Your task to perform on an android device: Go to Reddit.com Image 0: 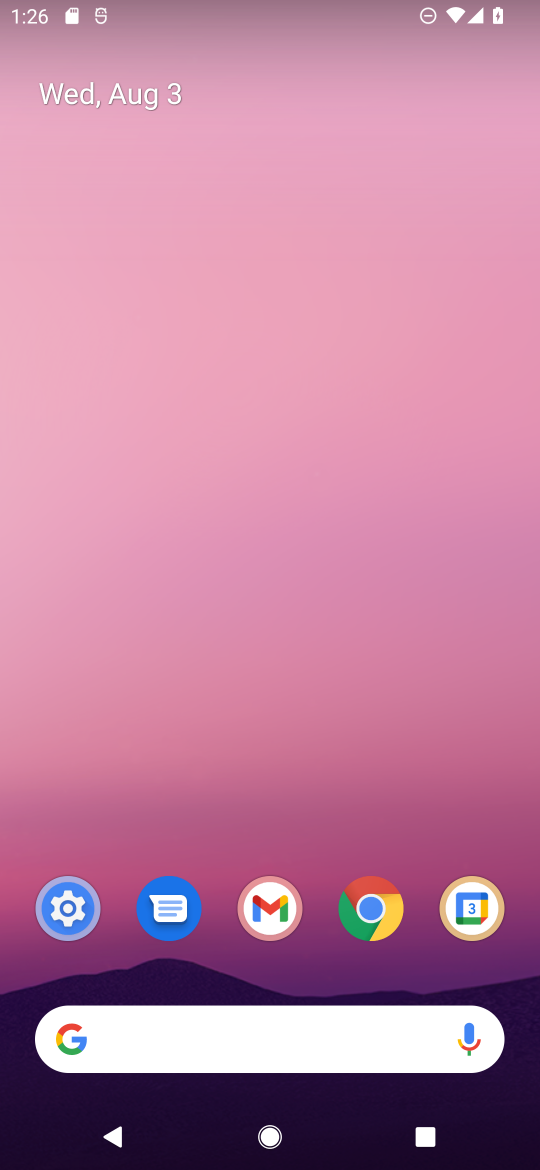
Step 0: click (380, 930)
Your task to perform on an android device: Go to Reddit.com Image 1: 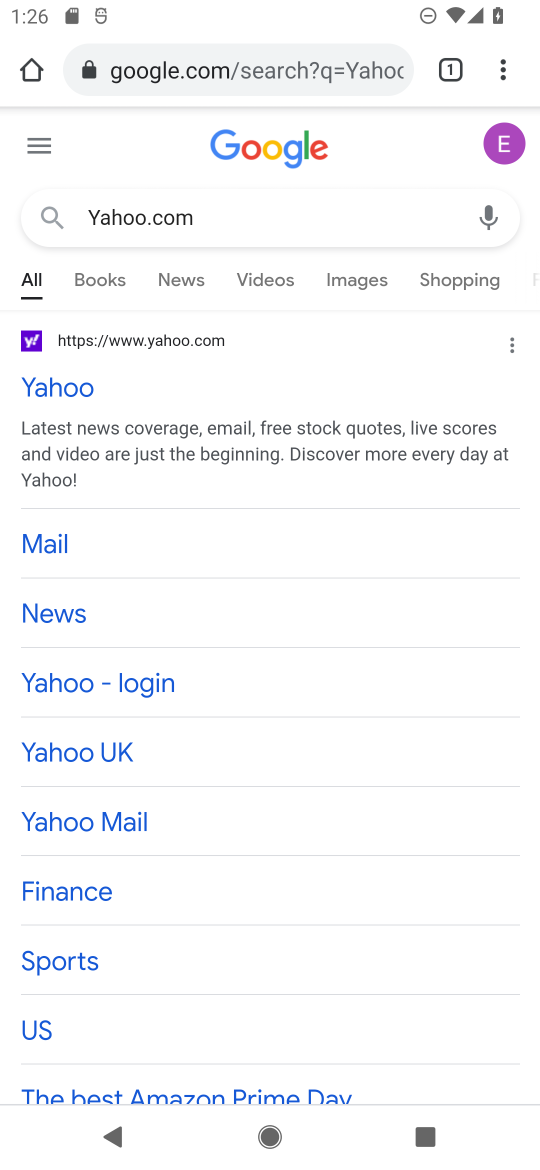
Step 1: click (241, 76)
Your task to perform on an android device: Go to Reddit.com Image 2: 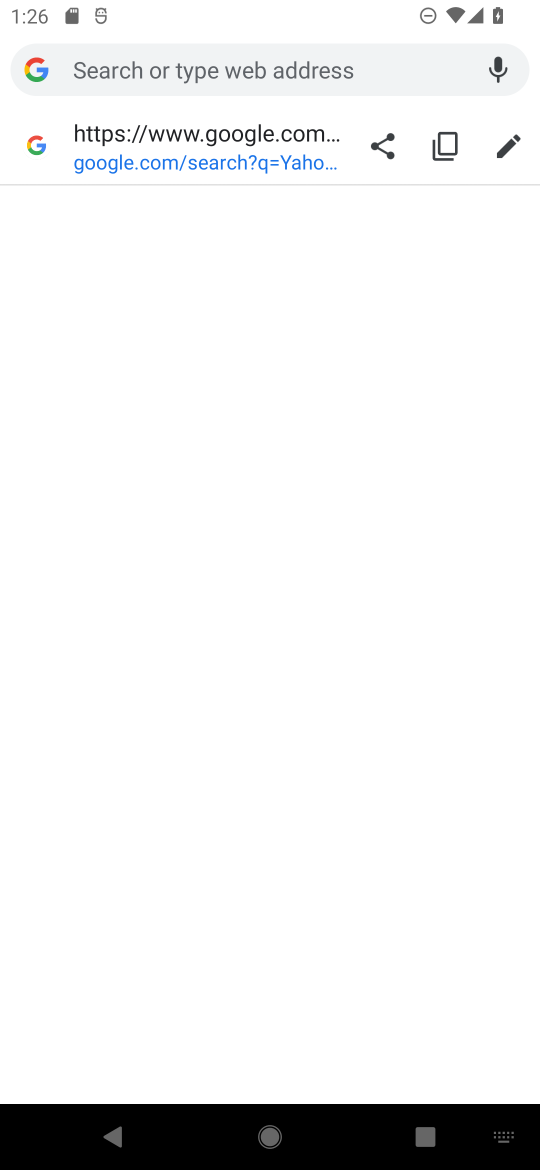
Step 2: type "www.reddit.com"
Your task to perform on an android device: Go to Reddit.com Image 3: 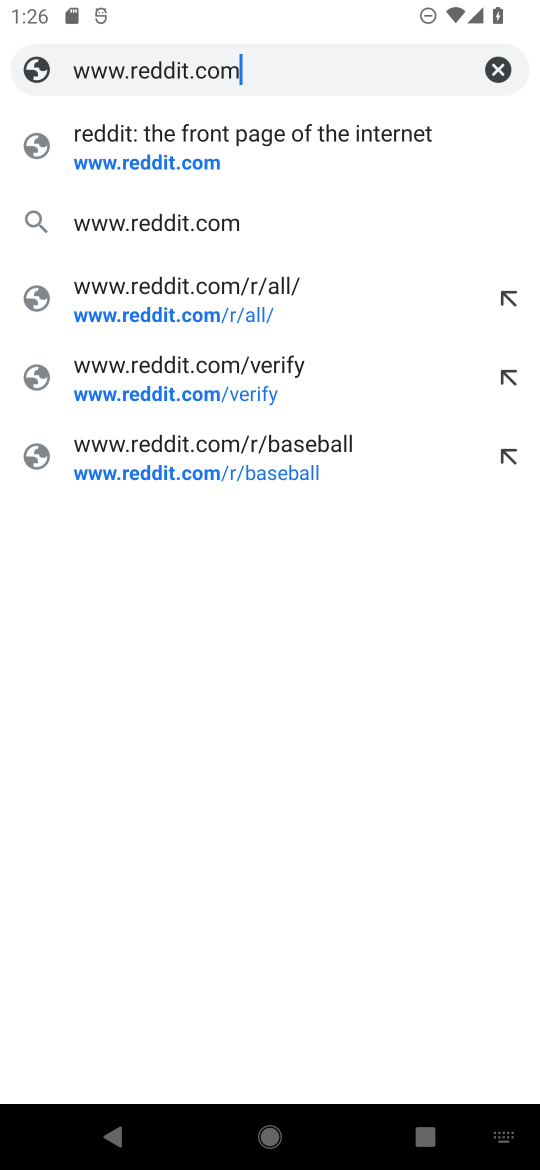
Step 3: click (199, 157)
Your task to perform on an android device: Go to Reddit.com Image 4: 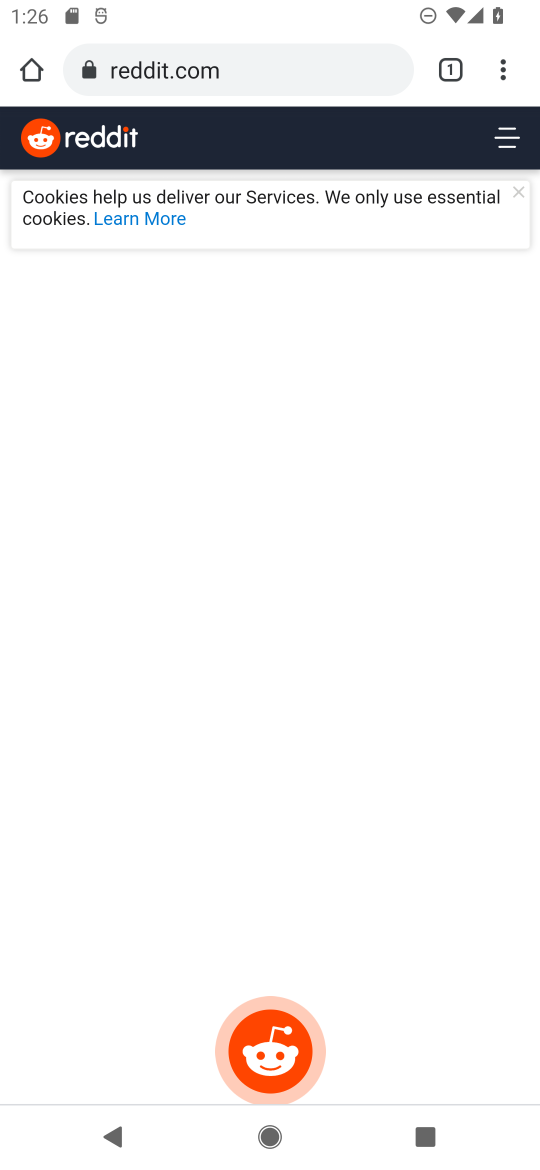
Step 4: task complete